Your task to perform on an android device: Search for the best rated vacuums on Target Image 0: 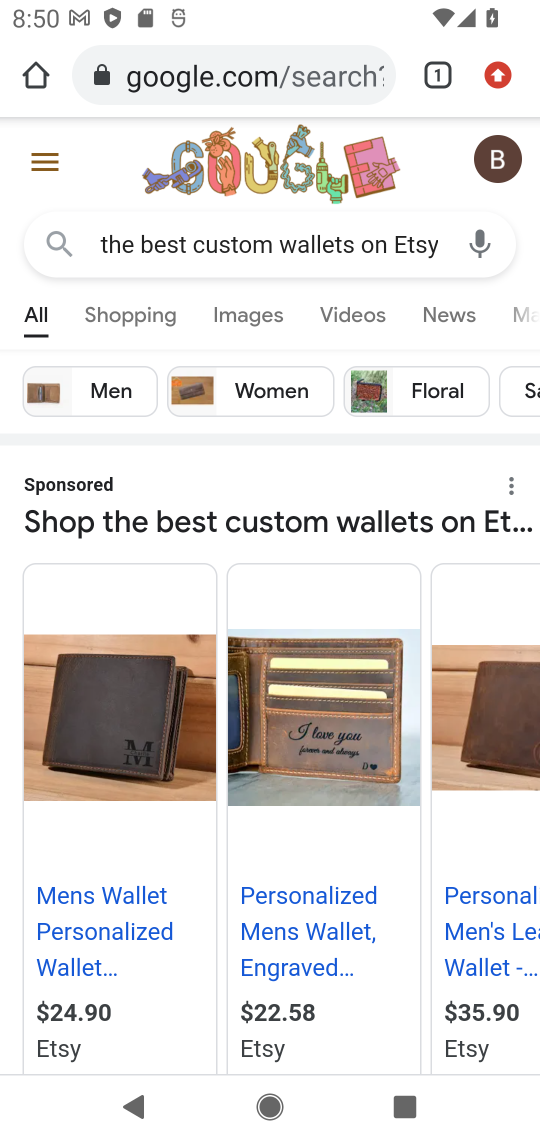
Step 0: press home button
Your task to perform on an android device: Search for the best rated vacuums on Target Image 1: 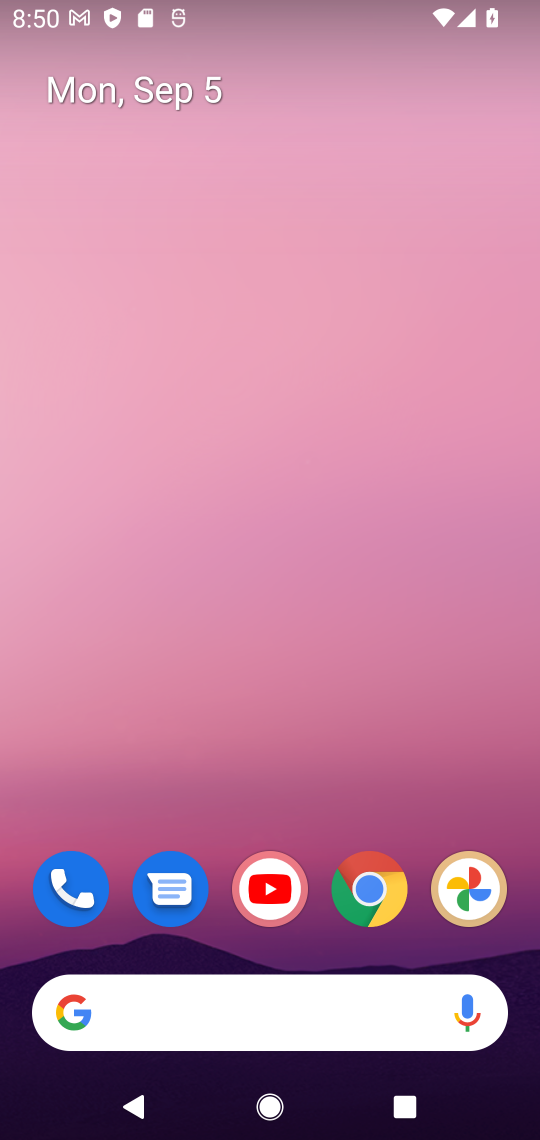
Step 1: click (268, 1019)
Your task to perform on an android device: Search for the best rated vacuums on Target Image 2: 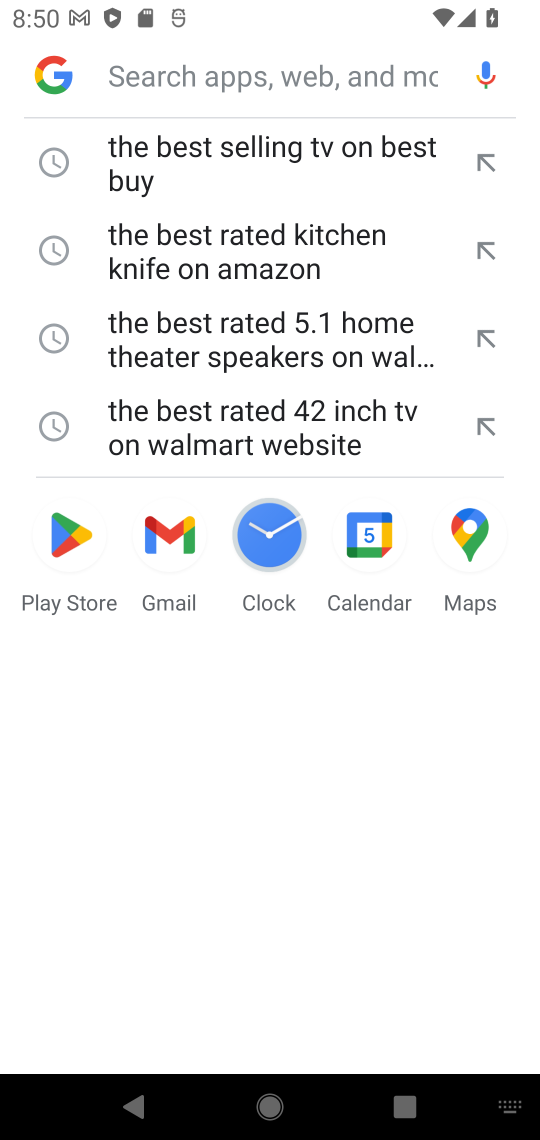
Step 2: type "the best rated vacuums on Target"
Your task to perform on an android device: Search for the best rated vacuums on Target Image 3: 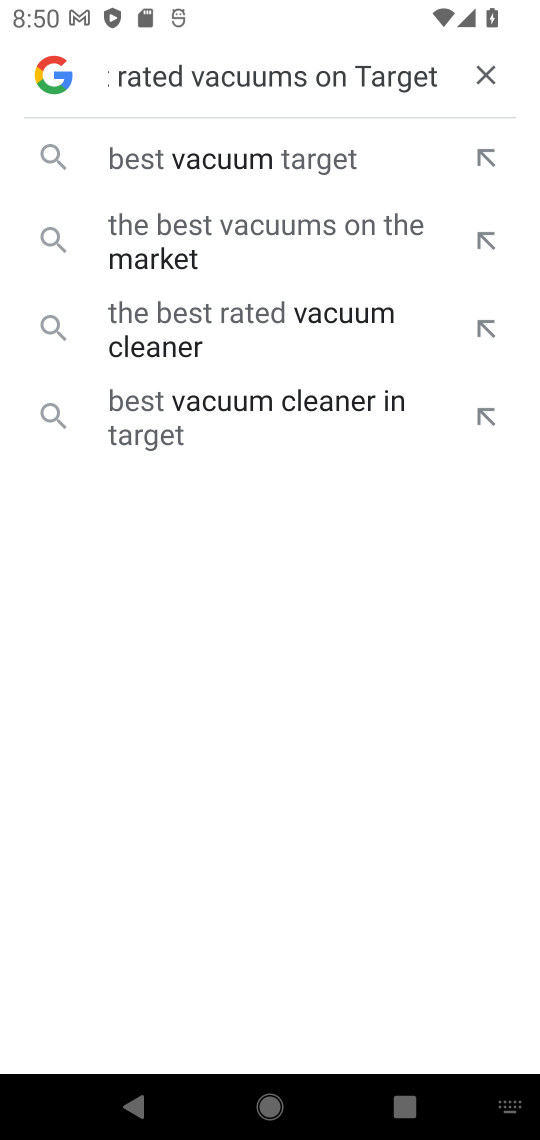
Step 3: click (155, 160)
Your task to perform on an android device: Search for the best rated vacuums on Target Image 4: 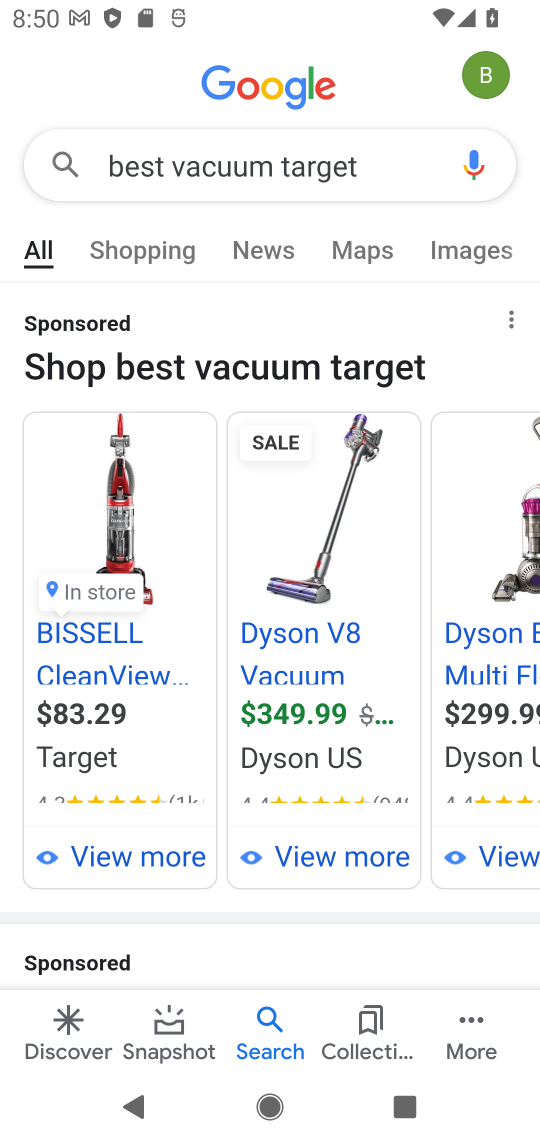
Step 4: task complete